Your task to perform on an android device: empty trash in google photos Image 0: 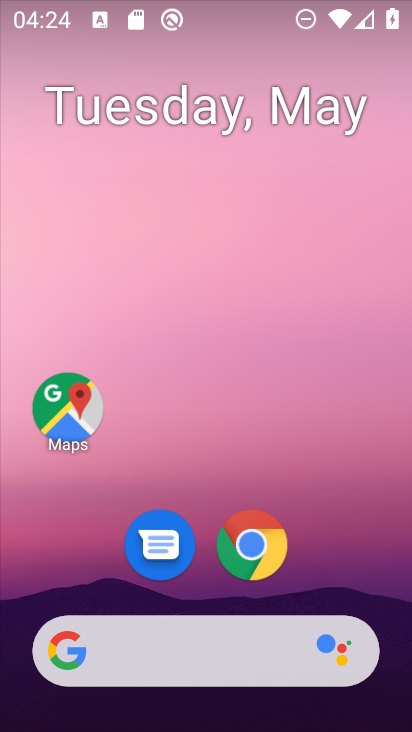
Step 0: drag from (379, 606) to (343, 102)
Your task to perform on an android device: empty trash in google photos Image 1: 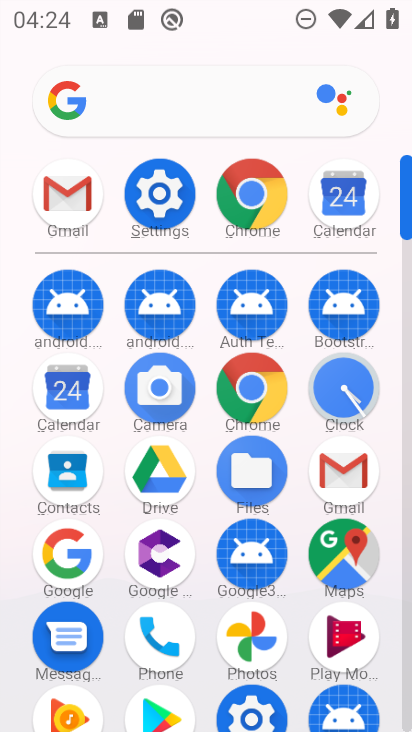
Step 1: click (247, 636)
Your task to perform on an android device: empty trash in google photos Image 2: 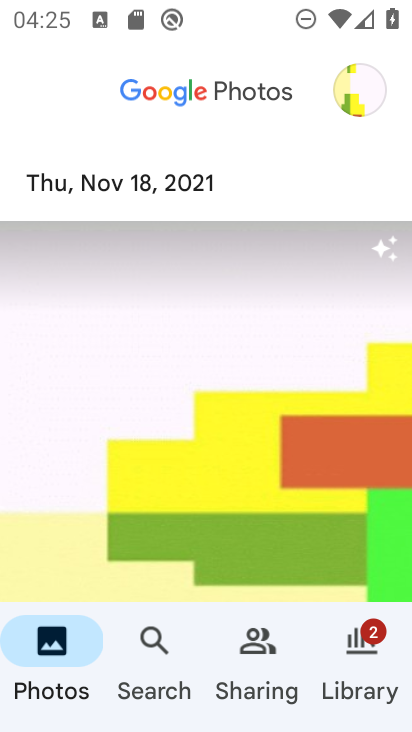
Step 2: click (357, 101)
Your task to perform on an android device: empty trash in google photos Image 3: 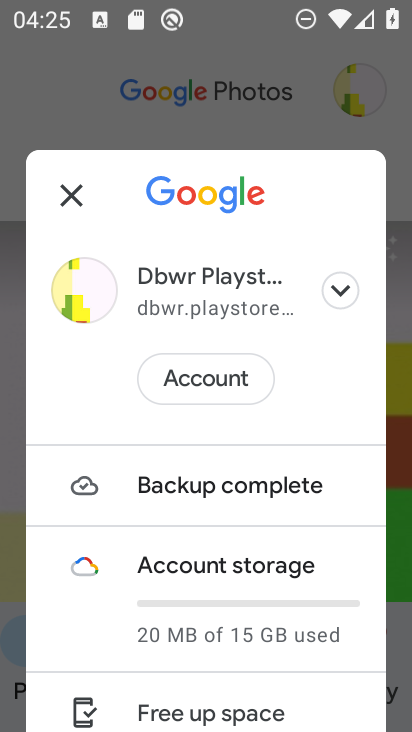
Step 3: click (357, 97)
Your task to perform on an android device: empty trash in google photos Image 4: 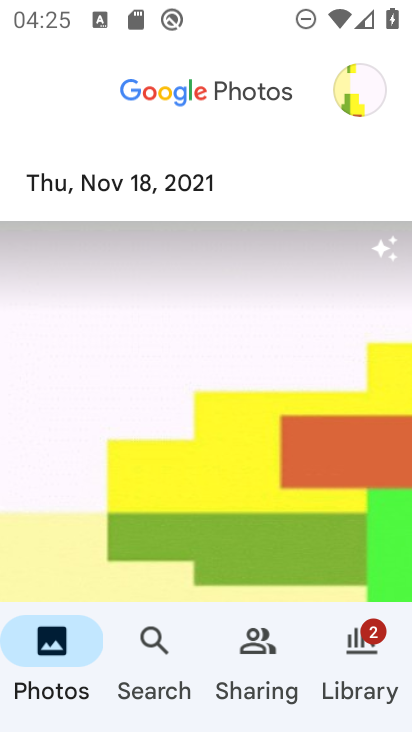
Step 4: click (356, 95)
Your task to perform on an android device: empty trash in google photos Image 5: 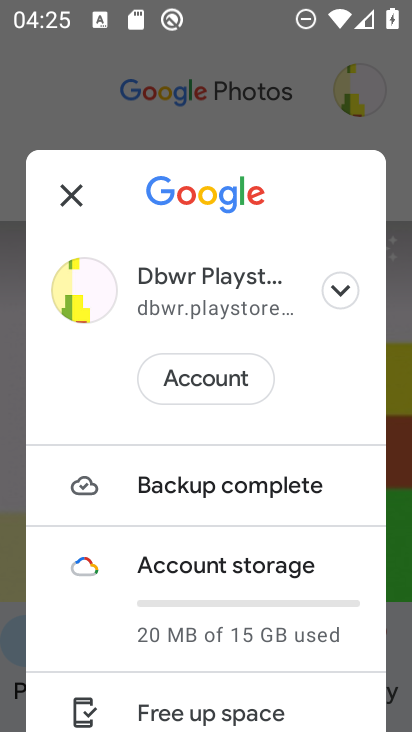
Step 5: drag from (202, 689) to (198, 486)
Your task to perform on an android device: empty trash in google photos Image 6: 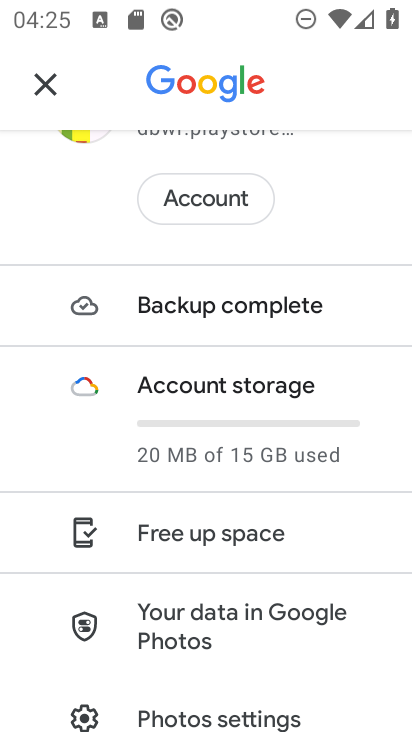
Step 6: click (40, 83)
Your task to perform on an android device: empty trash in google photos Image 7: 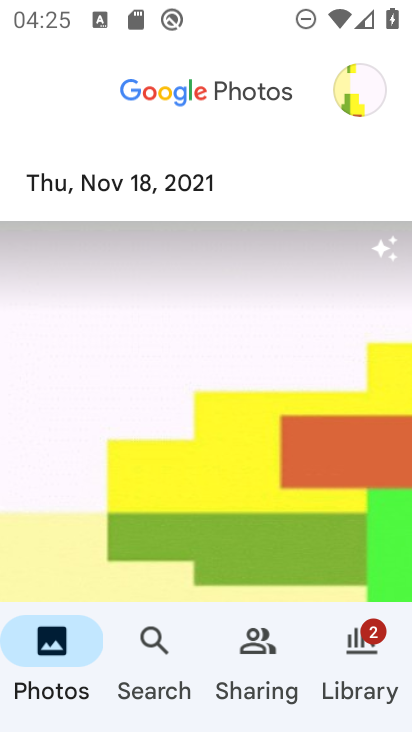
Step 7: click (362, 646)
Your task to perform on an android device: empty trash in google photos Image 8: 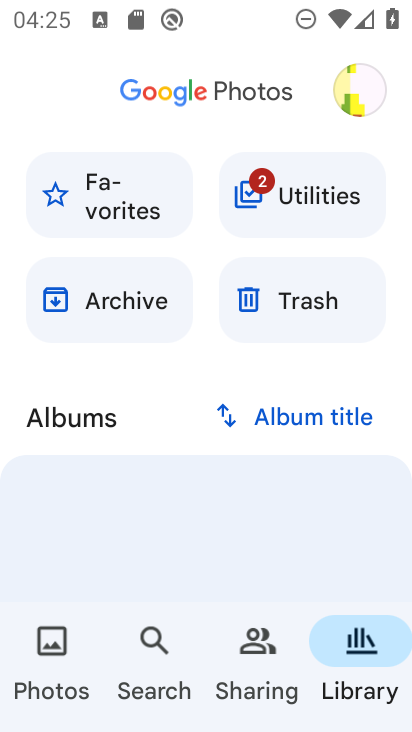
Step 8: click (282, 299)
Your task to perform on an android device: empty trash in google photos Image 9: 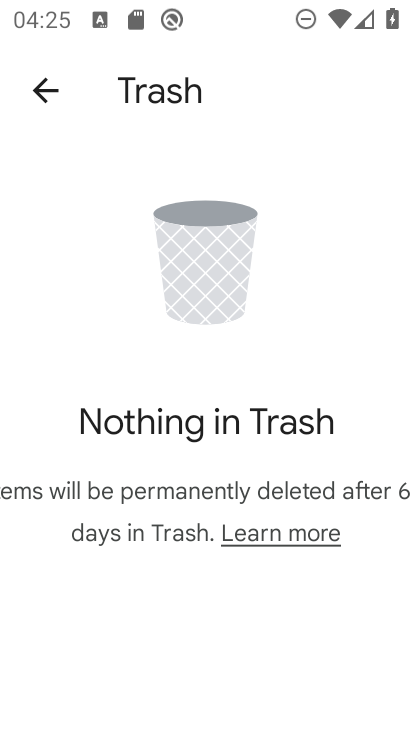
Step 9: task complete